Your task to perform on an android device: What's on my calendar today? Image 0: 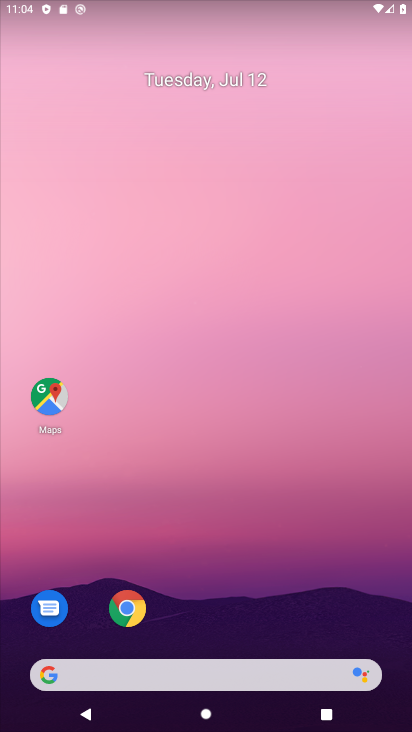
Step 0: click (209, 82)
Your task to perform on an android device: What's on my calendar today? Image 1: 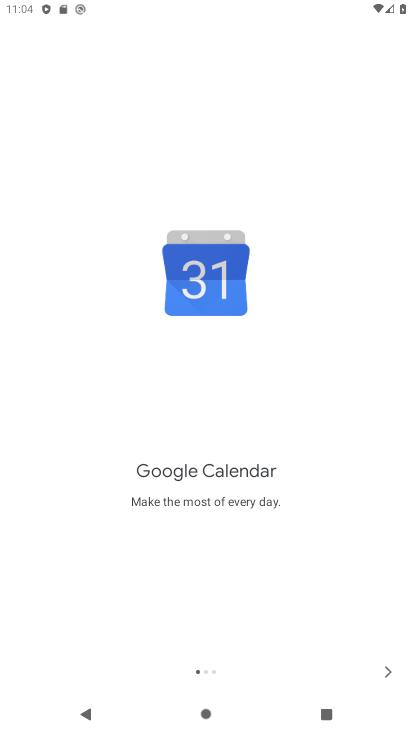
Step 1: click (400, 667)
Your task to perform on an android device: What's on my calendar today? Image 2: 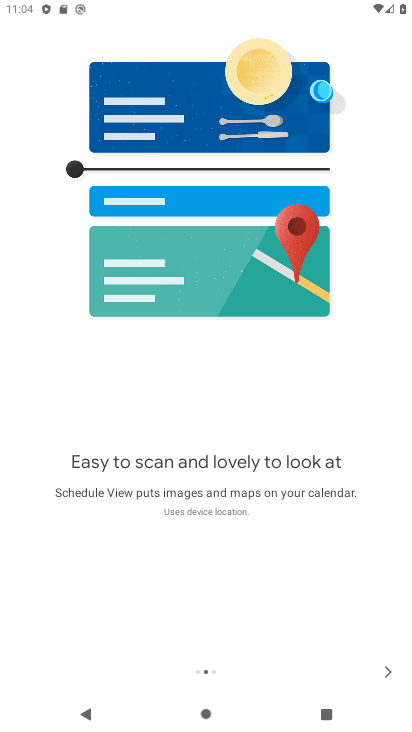
Step 2: click (400, 667)
Your task to perform on an android device: What's on my calendar today? Image 3: 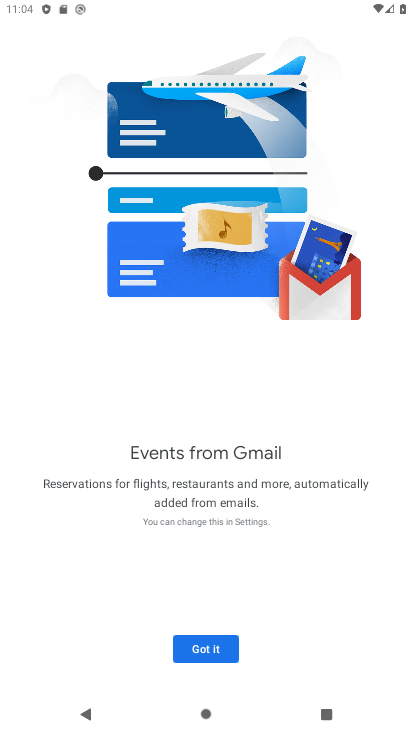
Step 3: click (400, 667)
Your task to perform on an android device: What's on my calendar today? Image 4: 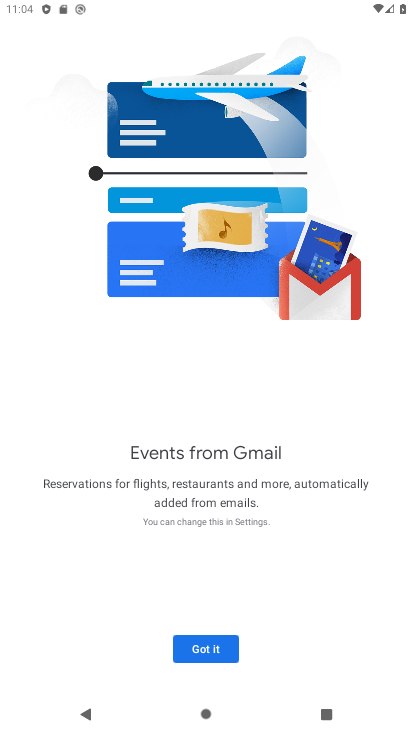
Step 4: click (204, 638)
Your task to perform on an android device: What's on my calendar today? Image 5: 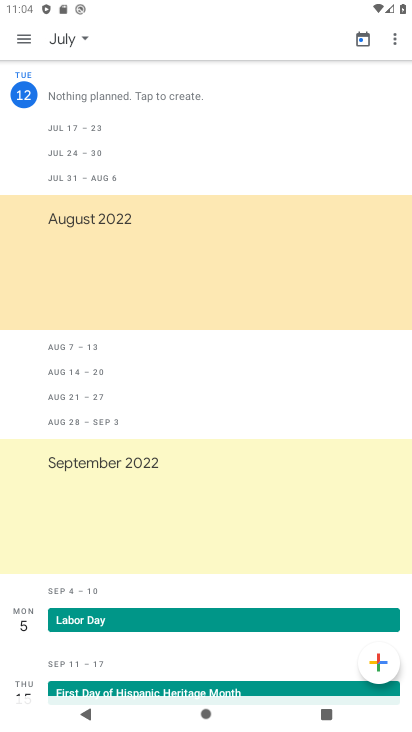
Step 5: click (72, 34)
Your task to perform on an android device: What's on my calendar today? Image 6: 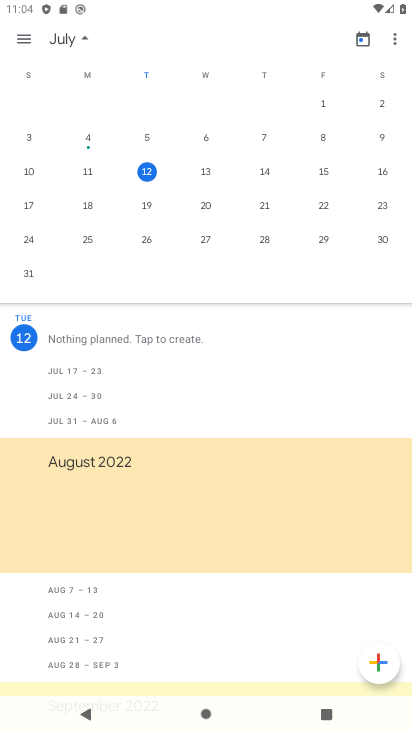
Step 6: task complete